Your task to perform on an android device: Open Youtube and go to the subscriptions tab Image 0: 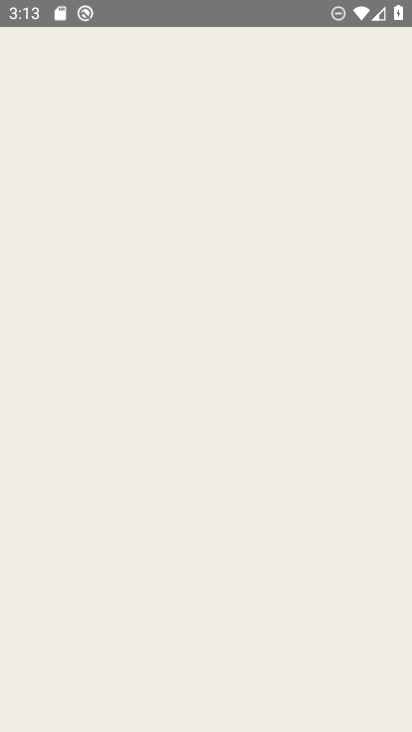
Step 0: press home button
Your task to perform on an android device: Open Youtube and go to the subscriptions tab Image 1: 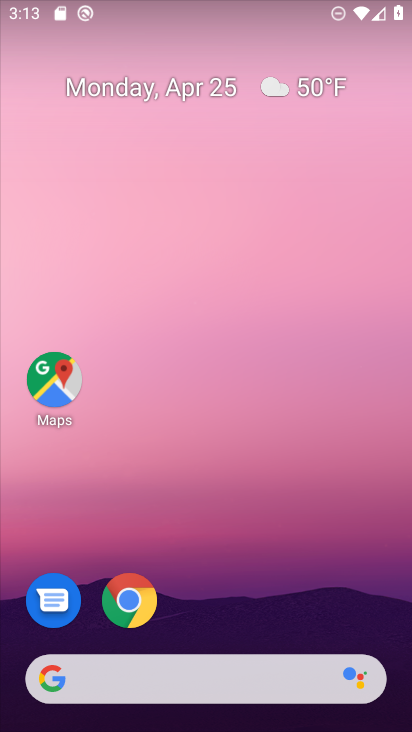
Step 1: drag from (202, 634) to (399, 3)
Your task to perform on an android device: Open Youtube and go to the subscriptions tab Image 2: 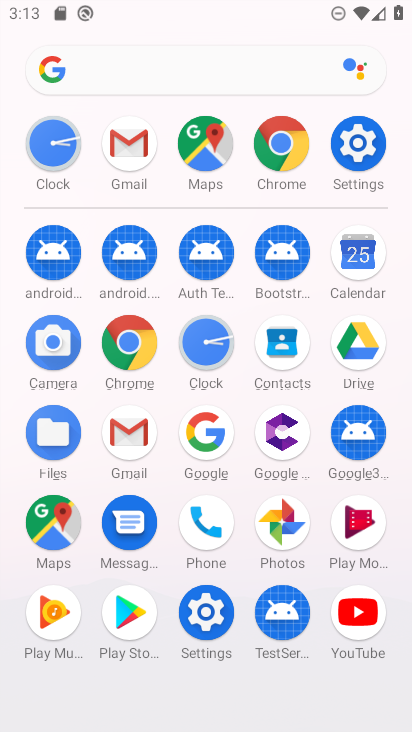
Step 2: click (350, 623)
Your task to perform on an android device: Open Youtube and go to the subscriptions tab Image 3: 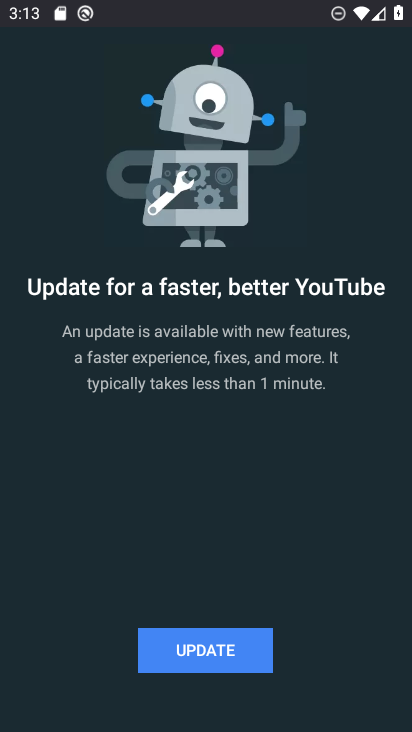
Step 3: click (243, 652)
Your task to perform on an android device: Open Youtube and go to the subscriptions tab Image 4: 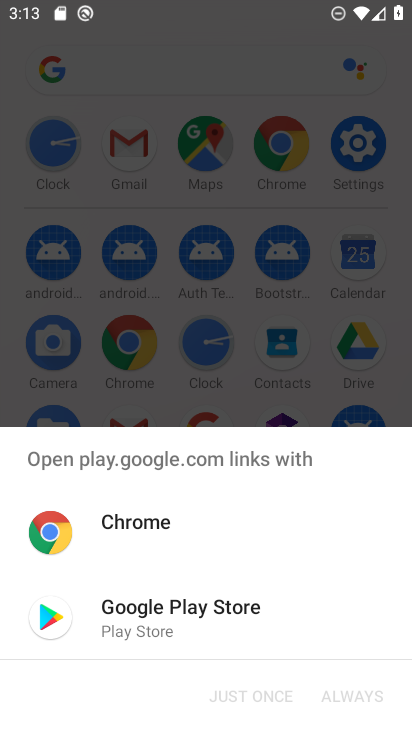
Step 4: click (215, 634)
Your task to perform on an android device: Open Youtube and go to the subscriptions tab Image 5: 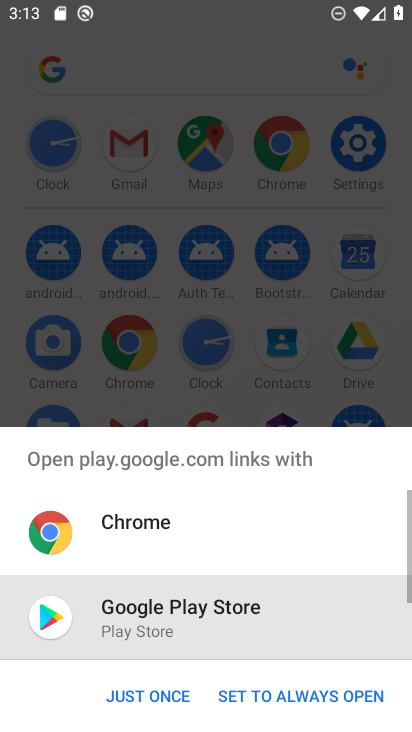
Step 5: click (243, 706)
Your task to perform on an android device: Open Youtube and go to the subscriptions tab Image 6: 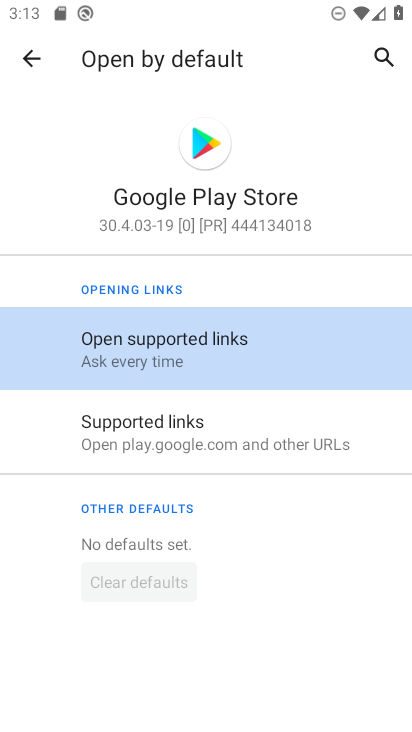
Step 6: click (16, 47)
Your task to perform on an android device: Open Youtube and go to the subscriptions tab Image 7: 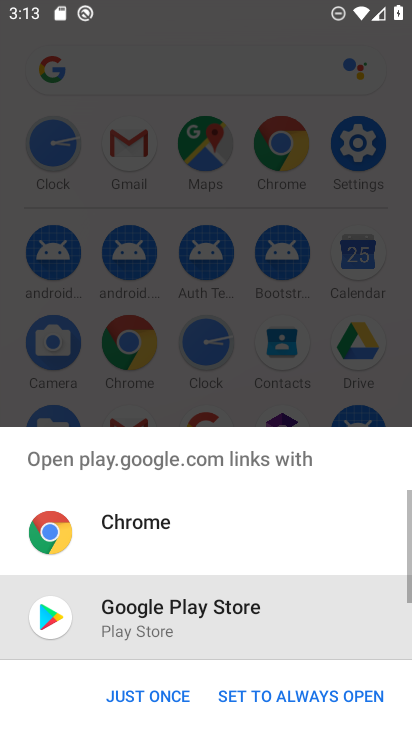
Step 7: click (162, 687)
Your task to perform on an android device: Open Youtube and go to the subscriptions tab Image 8: 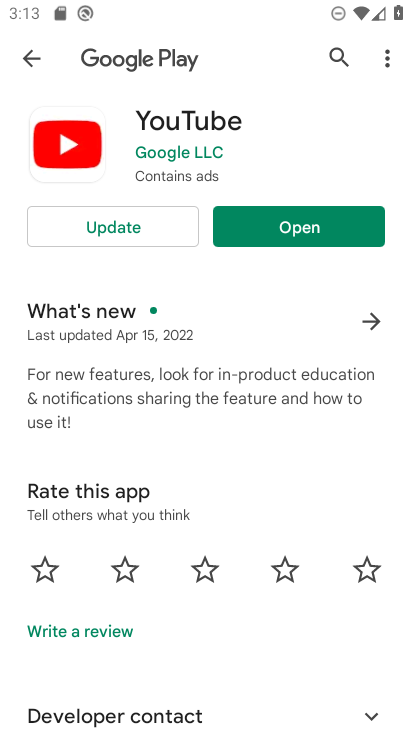
Step 8: click (275, 213)
Your task to perform on an android device: Open Youtube and go to the subscriptions tab Image 9: 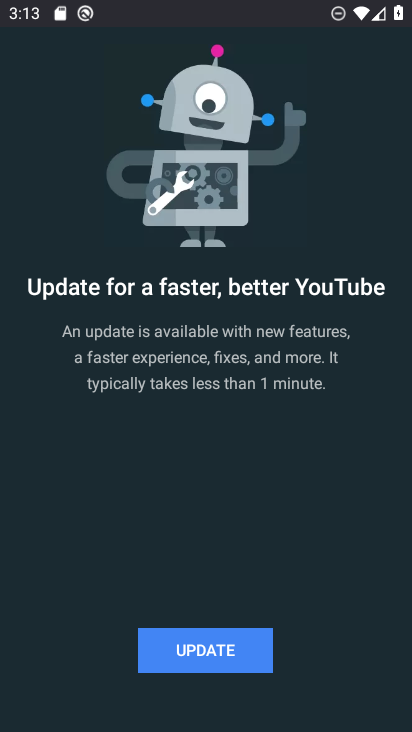
Step 9: click (223, 627)
Your task to perform on an android device: Open Youtube and go to the subscriptions tab Image 10: 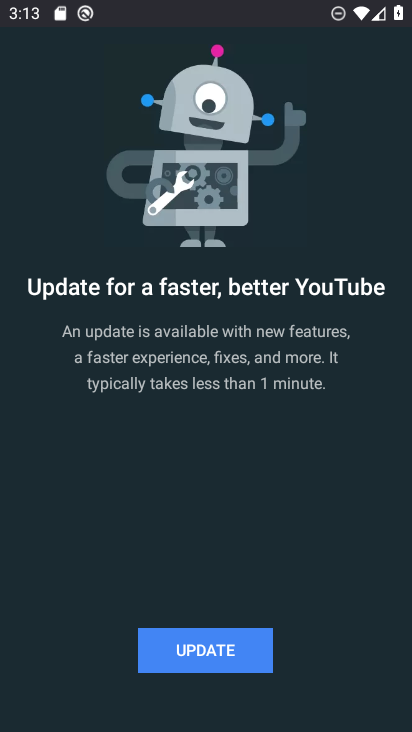
Step 10: click (214, 665)
Your task to perform on an android device: Open Youtube and go to the subscriptions tab Image 11: 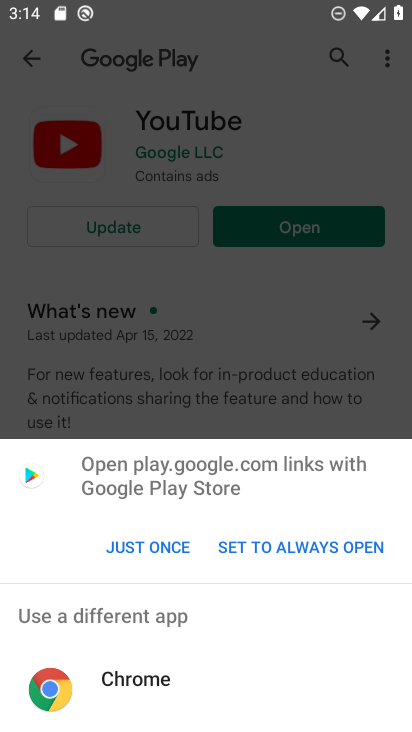
Step 11: click (145, 560)
Your task to perform on an android device: Open Youtube and go to the subscriptions tab Image 12: 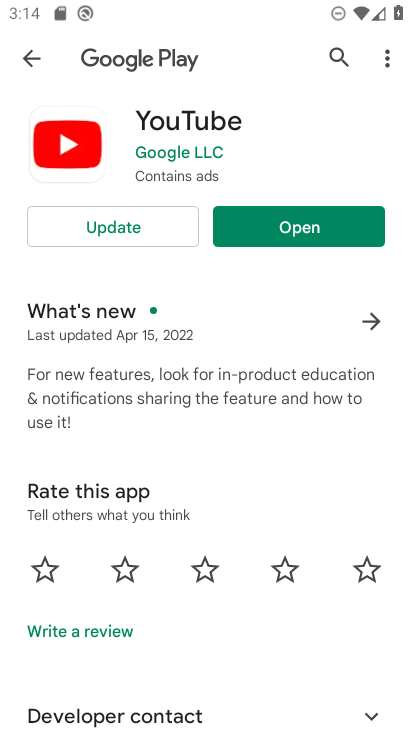
Step 12: click (301, 207)
Your task to perform on an android device: Open Youtube and go to the subscriptions tab Image 13: 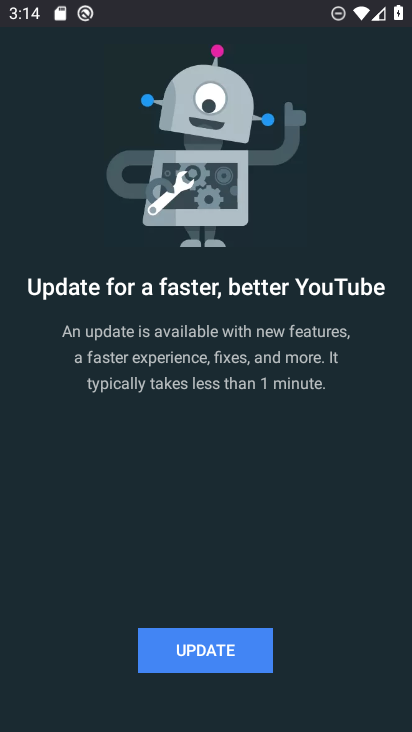
Step 13: click (208, 637)
Your task to perform on an android device: Open Youtube and go to the subscriptions tab Image 14: 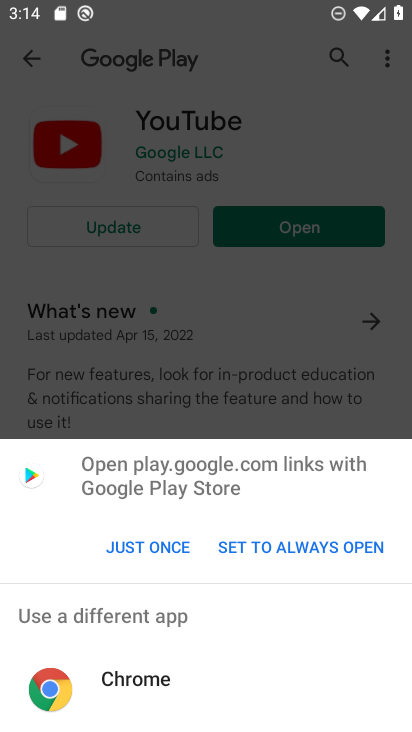
Step 14: click (102, 555)
Your task to perform on an android device: Open Youtube and go to the subscriptions tab Image 15: 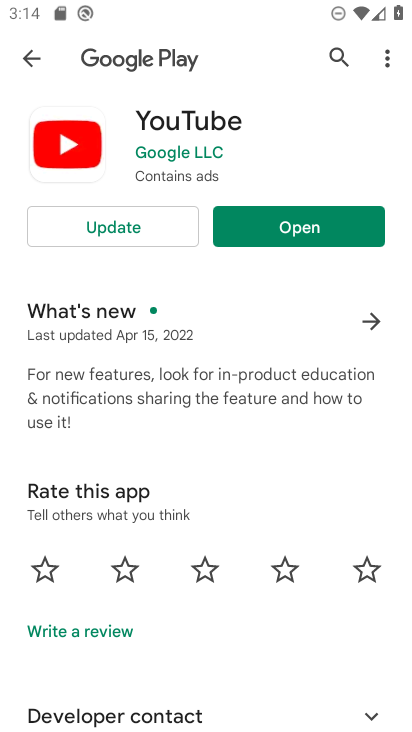
Step 15: click (137, 241)
Your task to perform on an android device: Open Youtube and go to the subscriptions tab Image 16: 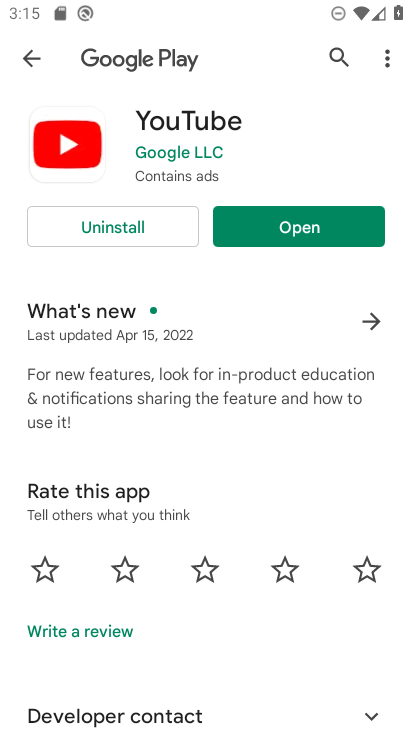
Step 16: click (313, 235)
Your task to perform on an android device: Open Youtube and go to the subscriptions tab Image 17: 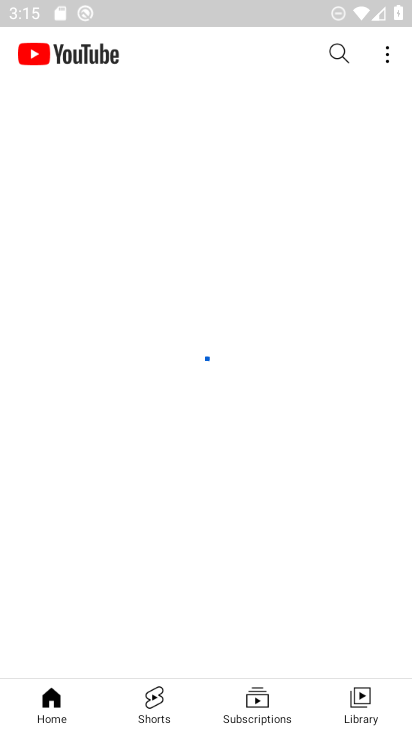
Step 17: click (249, 703)
Your task to perform on an android device: Open Youtube and go to the subscriptions tab Image 18: 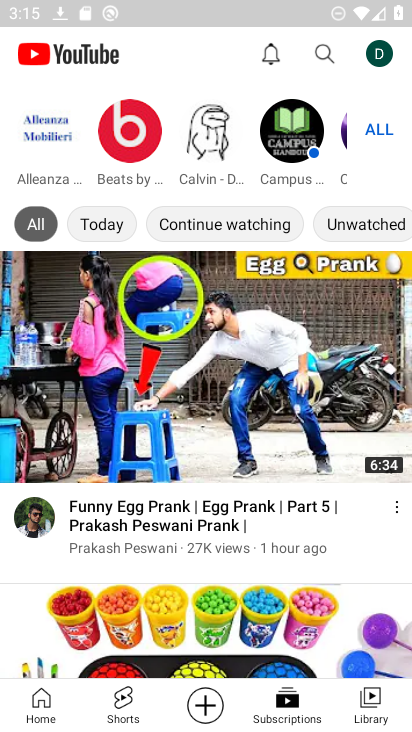
Step 18: task complete